Your task to perform on an android device: turn notification dots on Image 0: 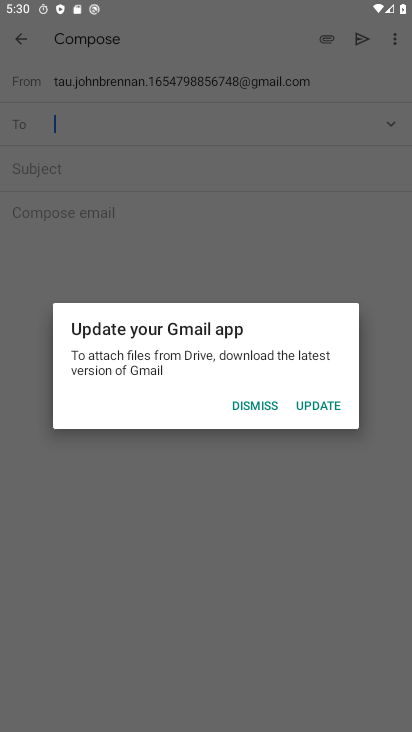
Step 0: click (260, 405)
Your task to perform on an android device: turn notification dots on Image 1: 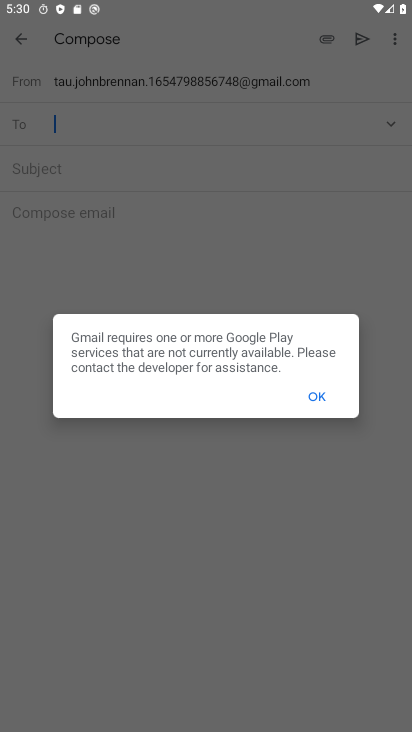
Step 1: click (311, 395)
Your task to perform on an android device: turn notification dots on Image 2: 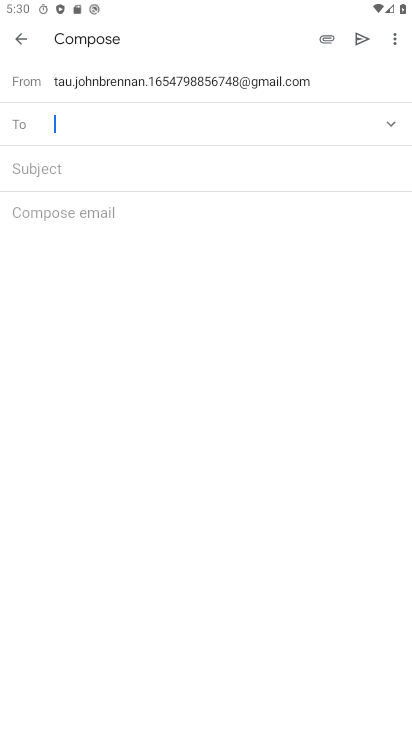
Step 2: press home button
Your task to perform on an android device: turn notification dots on Image 3: 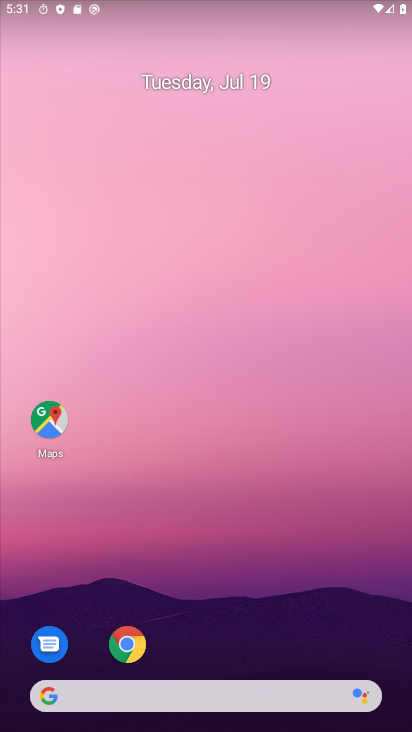
Step 3: drag from (212, 593) to (238, 226)
Your task to perform on an android device: turn notification dots on Image 4: 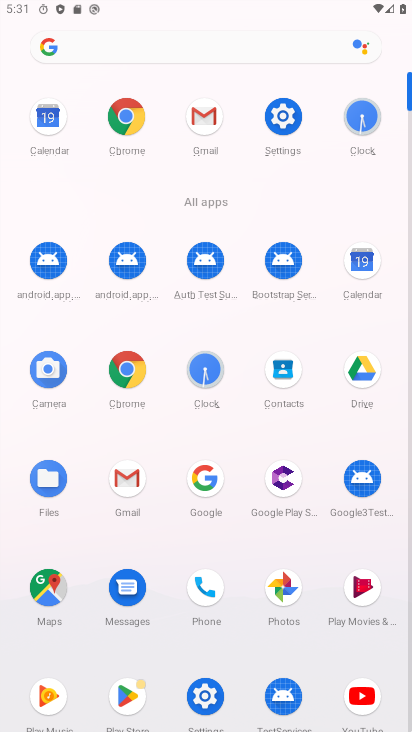
Step 4: click (207, 705)
Your task to perform on an android device: turn notification dots on Image 5: 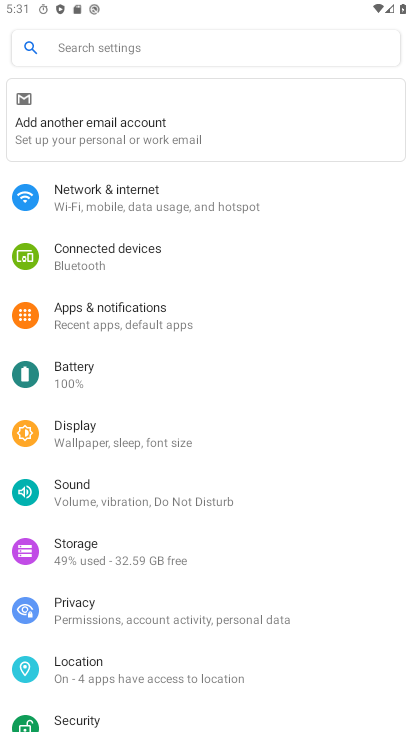
Step 5: click (132, 57)
Your task to perform on an android device: turn notification dots on Image 6: 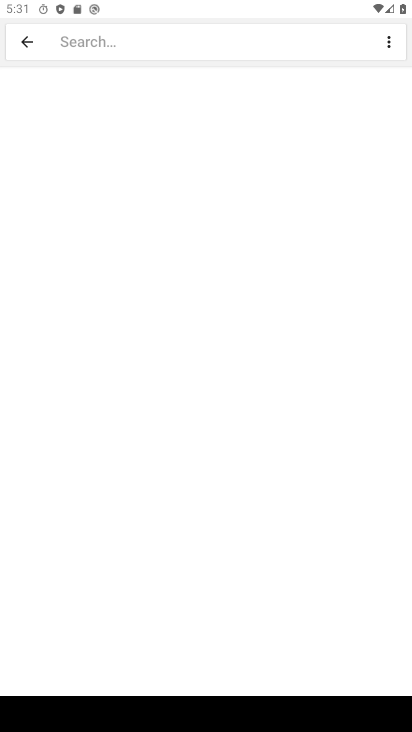
Step 6: type "notifification"
Your task to perform on an android device: turn notification dots on Image 7: 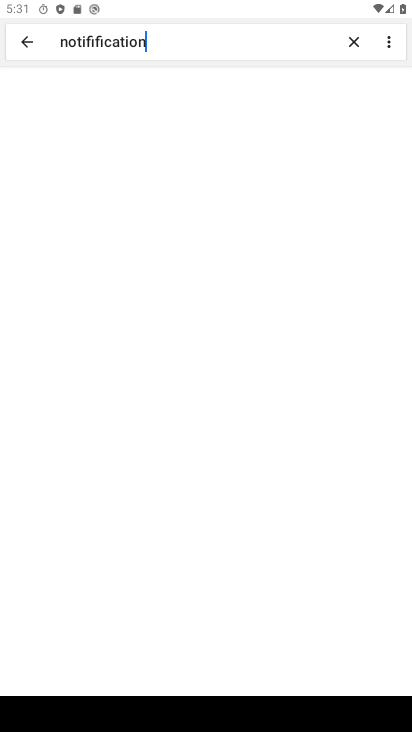
Step 7: press enter
Your task to perform on an android device: turn notification dots on Image 8: 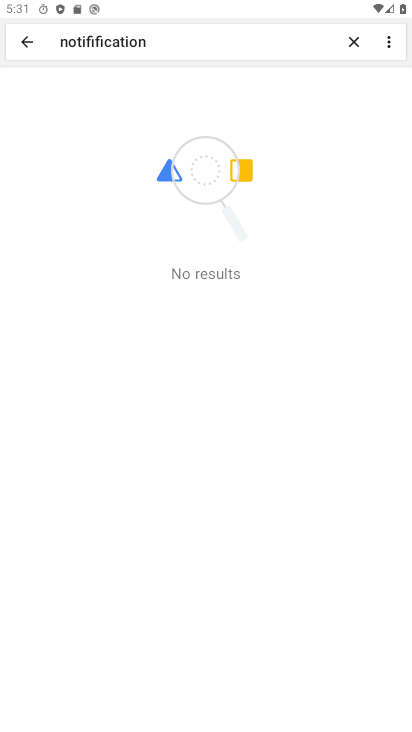
Step 8: task complete